Your task to perform on an android device: Check the weather Image 0: 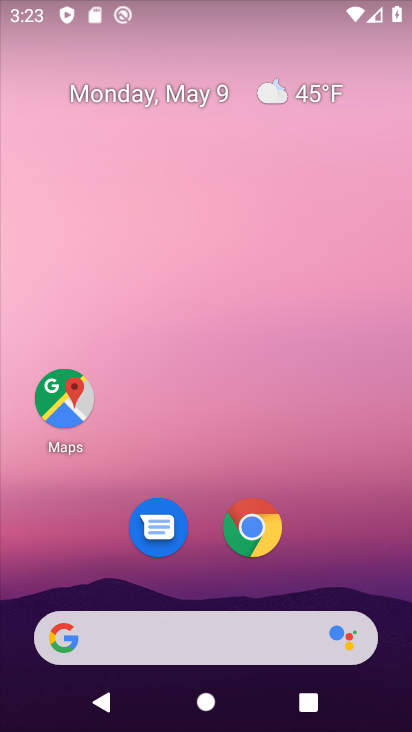
Step 0: drag from (346, 557) to (237, 128)
Your task to perform on an android device: Check the weather Image 1: 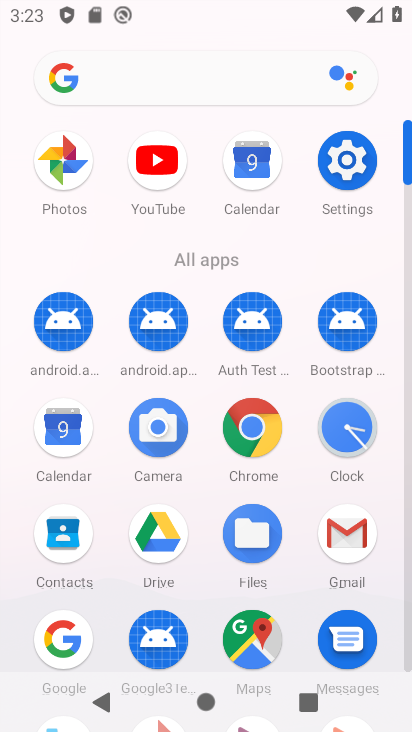
Step 1: click (264, 446)
Your task to perform on an android device: Check the weather Image 2: 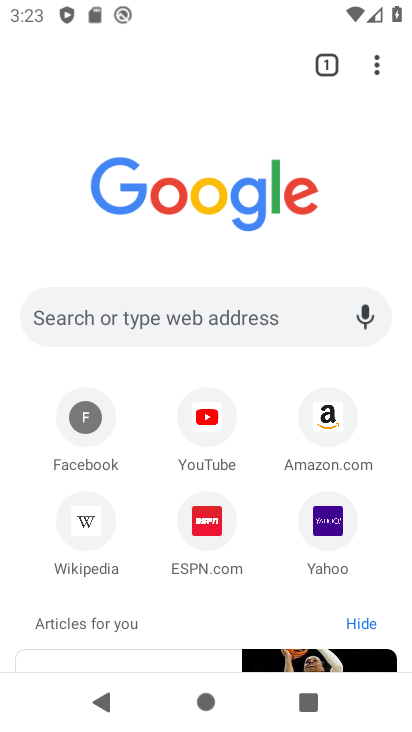
Step 2: click (205, 305)
Your task to perform on an android device: Check the weather Image 3: 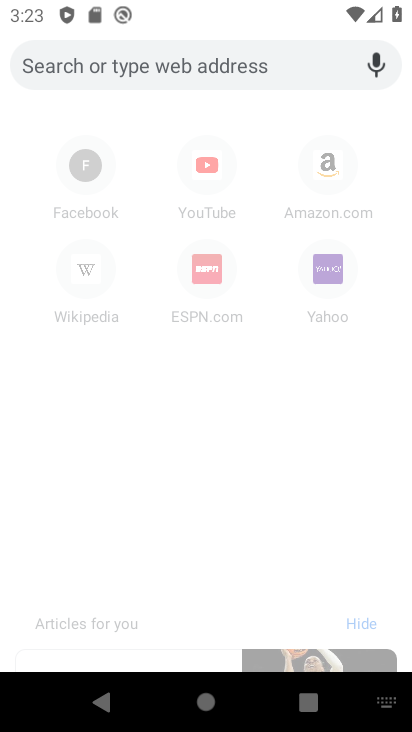
Step 3: type "weather"
Your task to perform on an android device: Check the weather Image 4: 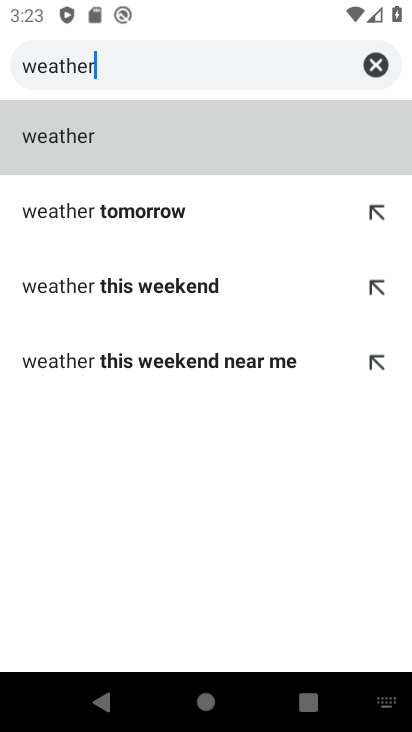
Step 4: click (39, 139)
Your task to perform on an android device: Check the weather Image 5: 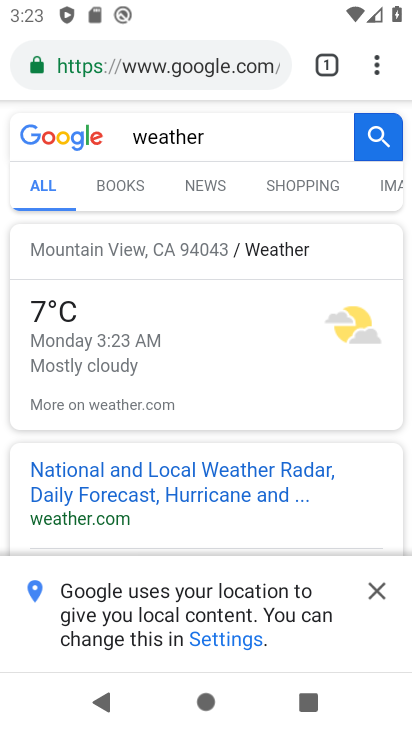
Step 5: click (378, 586)
Your task to perform on an android device: Check the weather Image 6: 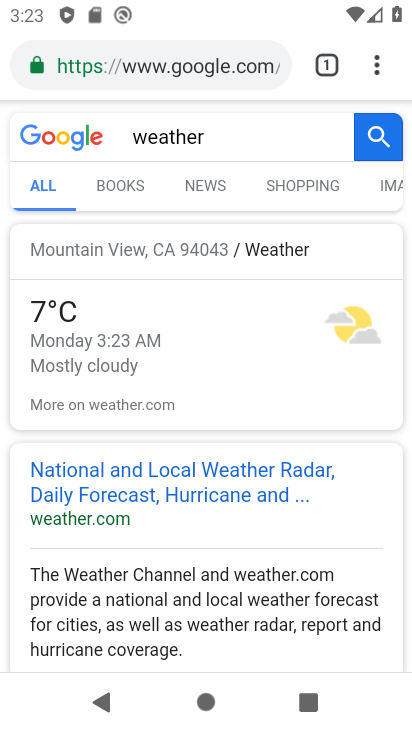
Step 6: task complete